Your task to perform on an android device: Show the shopping cart on costco. Search for "usb-a to usb-b" on costco, select the first entry, and add it to the cart. Image 0: 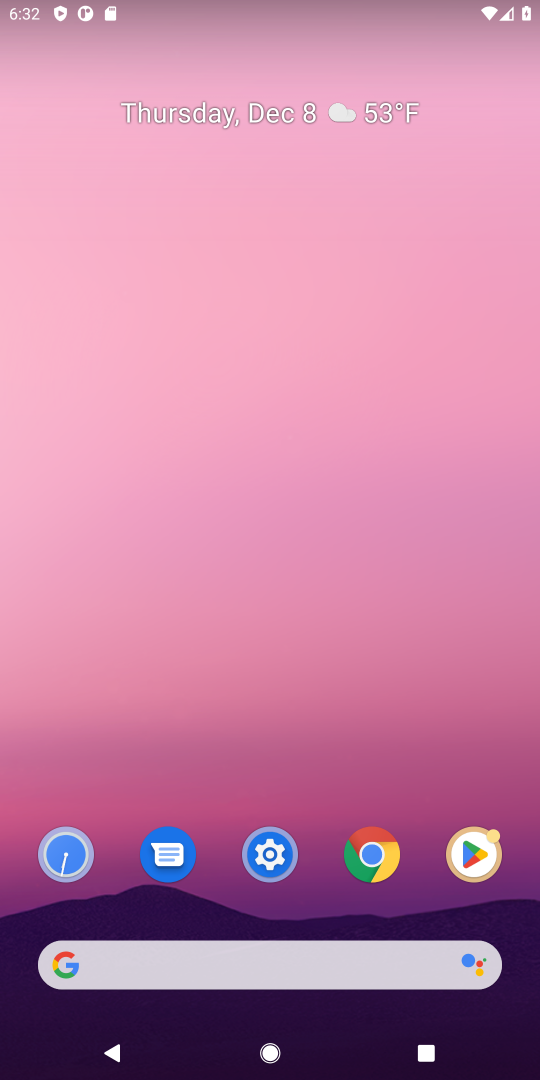
Step 0: press home button
Your task to perform on an android device: Show the shopping cart on costco. Search for "usb-a to usb-b" on costco, select the first entry, and add it to the cart. Image 1: 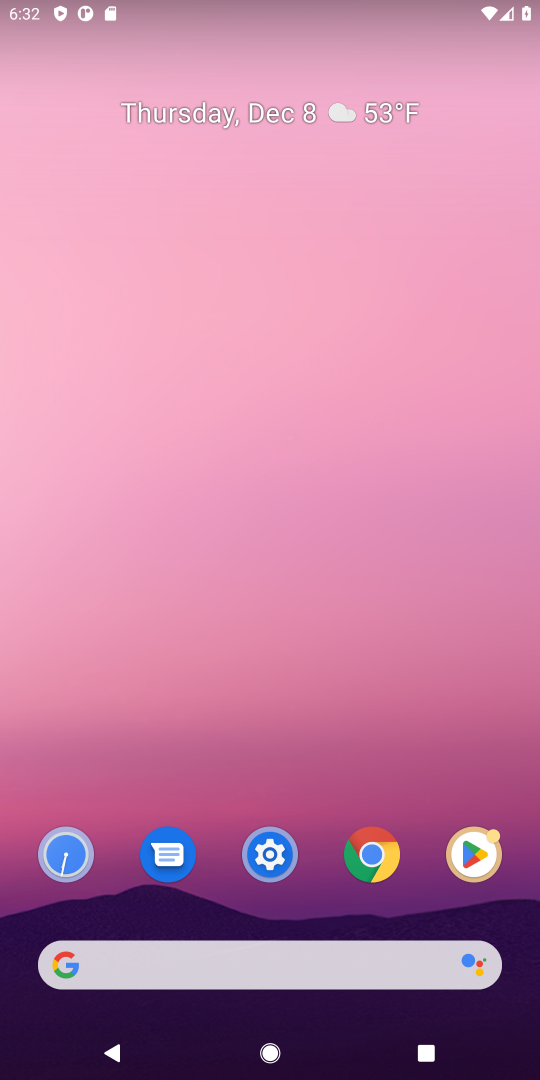
Step 1: click (91, 959)
Your task to perform on an android device: Show the shopping cart on costco. Search for "usb-a to usb-b" on costco, select the first entry, and add it to the cart. Image 2: 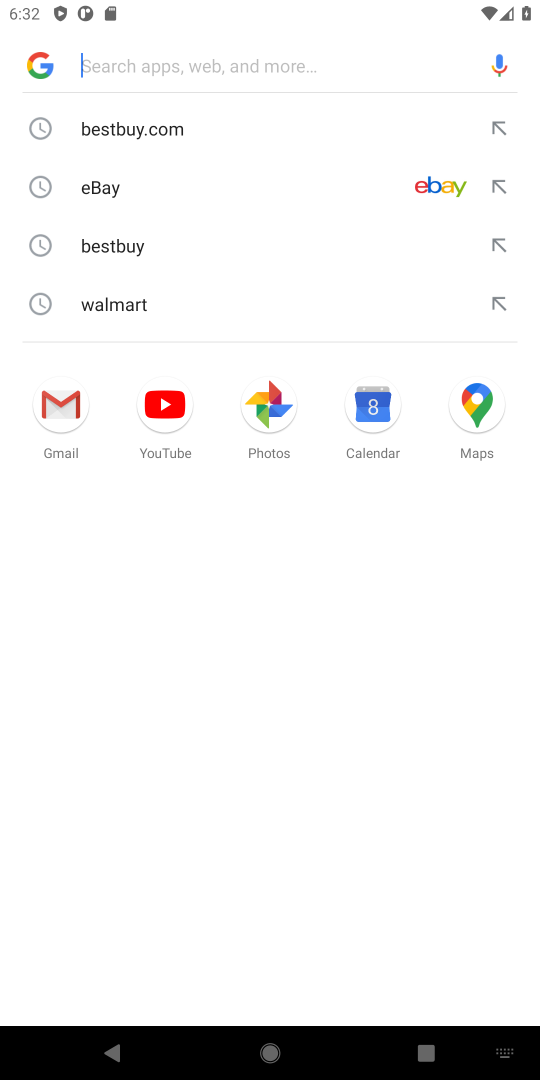
Step 2: type "costco"
Your task to perform on an android device: Show the shopping cart on costco. Search for "usb-a to usb-b" on costco, select the first entry, and add it to the cart. Image 3: 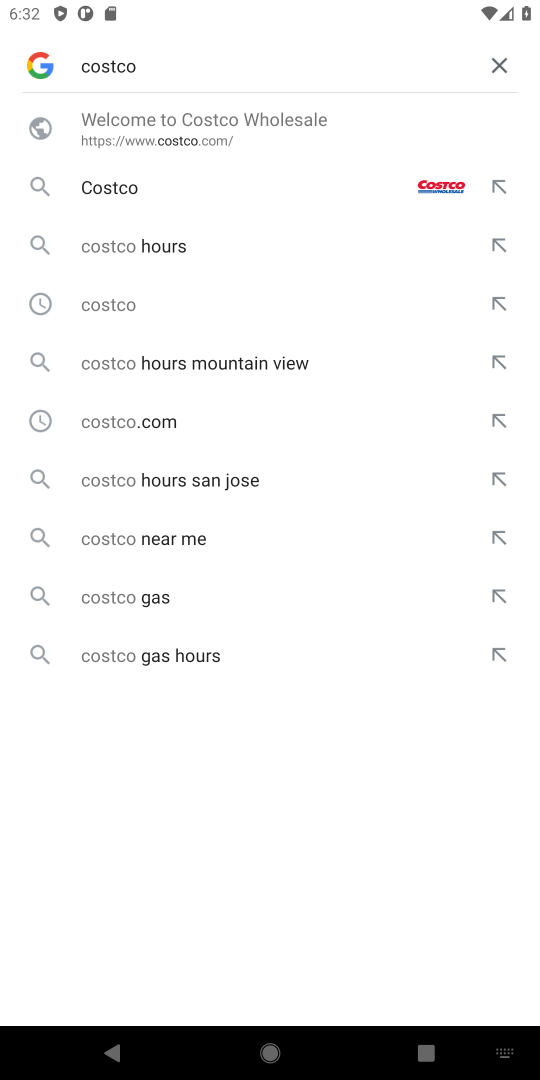
Step 3: press enter
Your task to perform on an android device: Show the shopping cart on costco. Search for "usb-a to usb-b" on costco, select the first entry, and add it to the cart. Image 4: 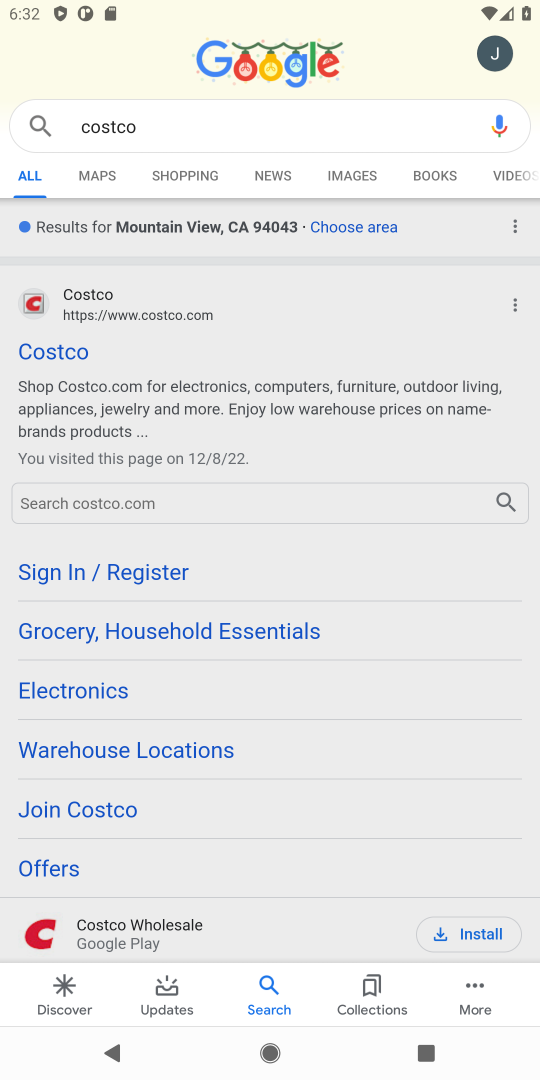
Step 4: click (39, 354)
Your task to perform on an android device: Show the shopping cart on costco. Search for "usb-a to usb-b" on costco, select the first entry, and add it to the cart. Image 5: 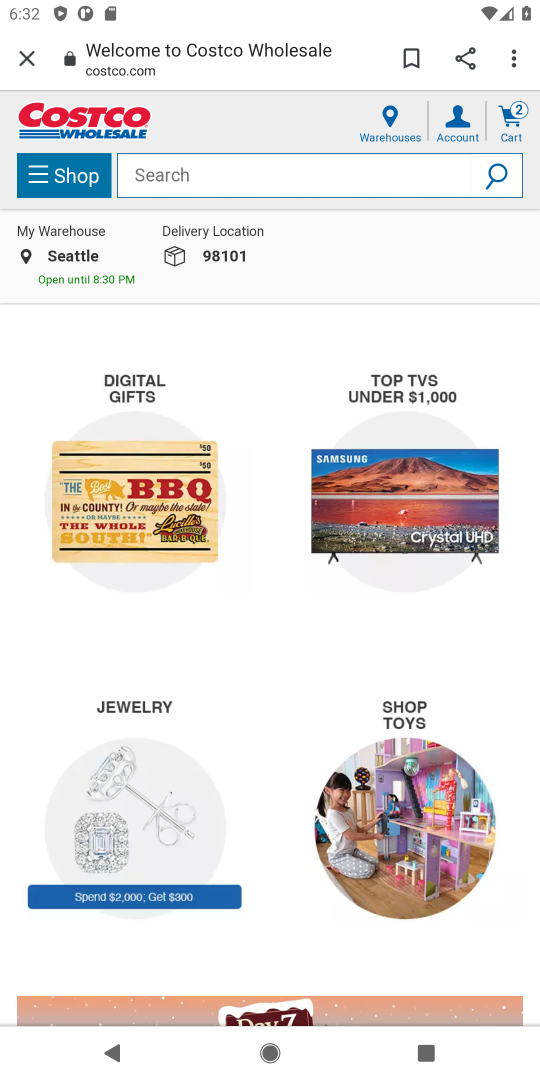
Step 5: click (508, 118)
Your task to perform on an android device: Show the shopping cart on costco. Search for "usb-a to usb-b" on costco, select the first entry, and add it to the cart. Image 6: 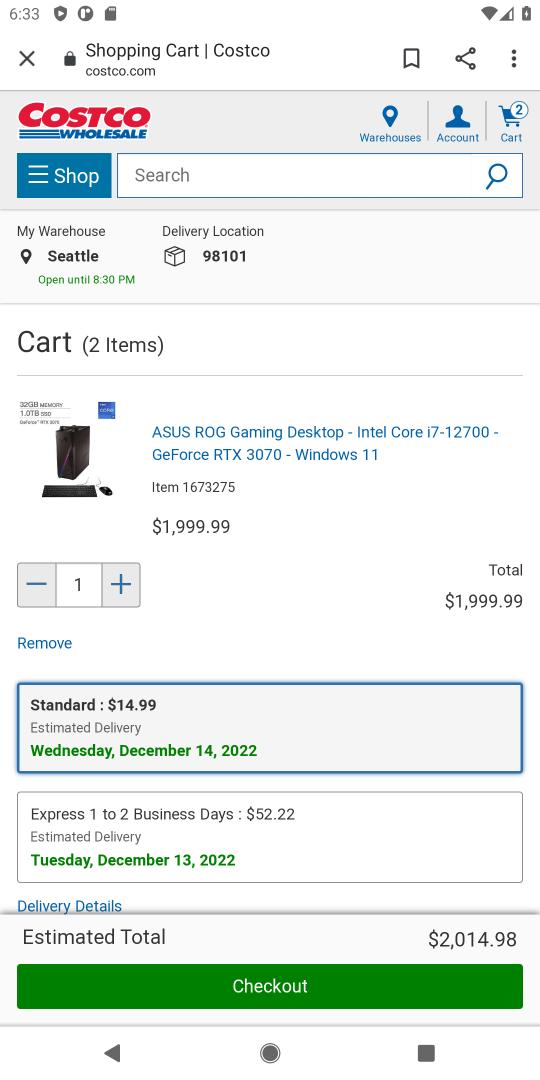
Step 6: click (197, 166)
Your task to perform on an android device: Show the shopping cart on costco. Search for "usb-a to usb-b" on costco, select the first entry, and add it to the cart. Image 7: 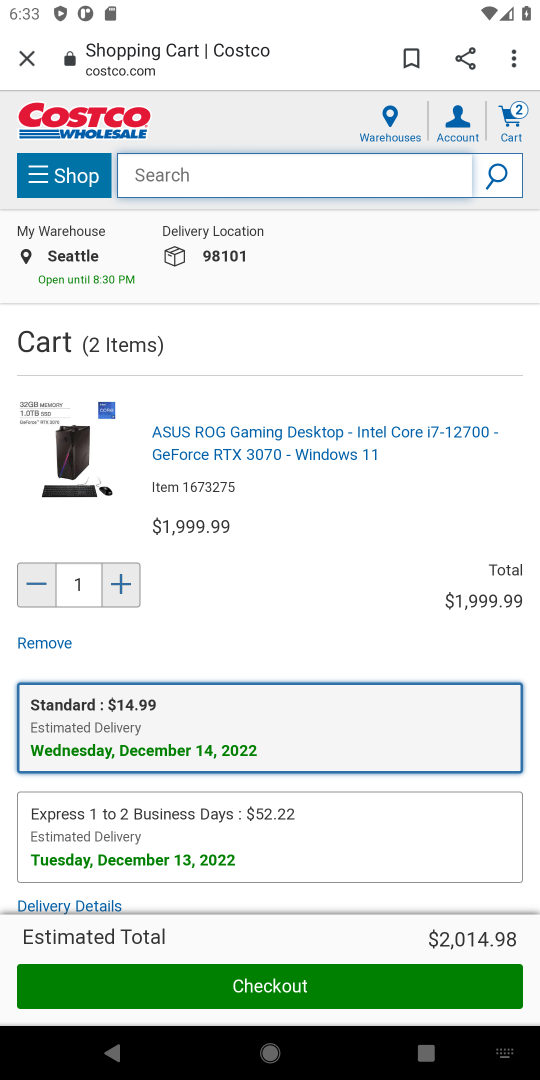
Step 7: type "usb-a to usb-b"
Your task to perform on an android device: Show the shopping cart on costco. Search for "usb-a to usb-b" on costco, select the first entry, and add it to the cart. Image 8: 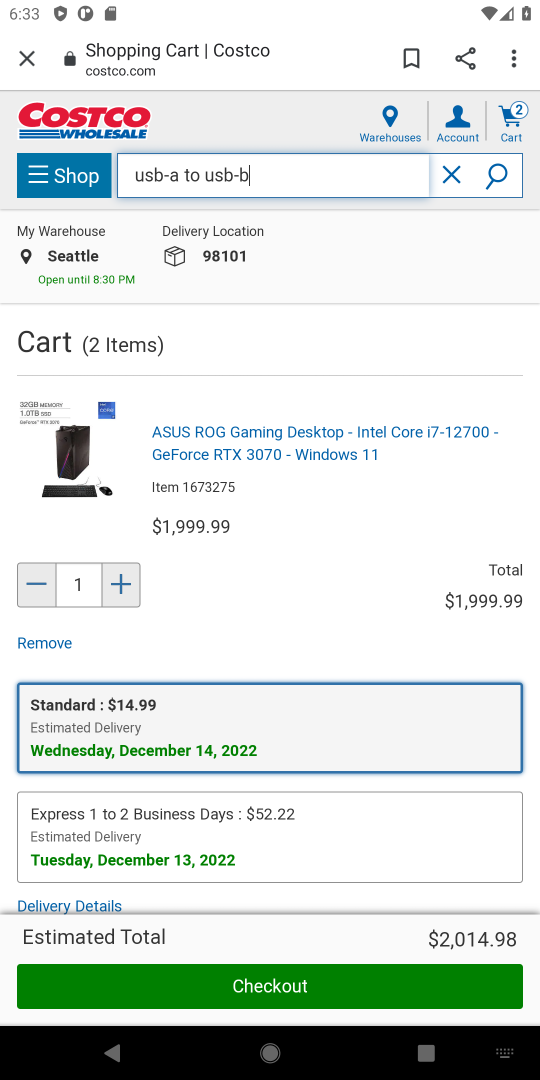
Step 8: press enter
Your task to perform on an android device: Show the shopping cart on costco. Search for "usb-a to usb-b" on costco, select the first entry, and add it to the cart. Image 9: 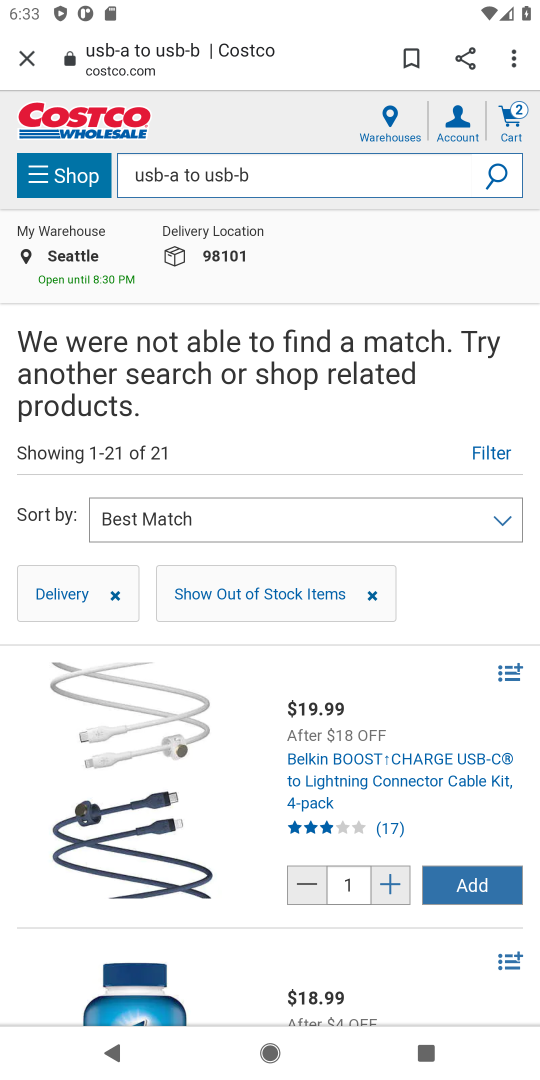
Step 9: task complete